Your task to perform on an android device: search for starred emails in the gmail app Image 0: 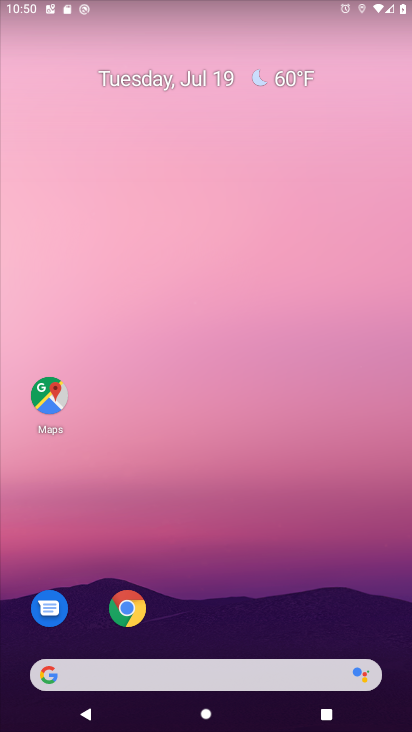
Step 0: drag from (214, 635) to (194, 65)
Your task to perform on an android device: search for starred emails in the gmail app Image 1: 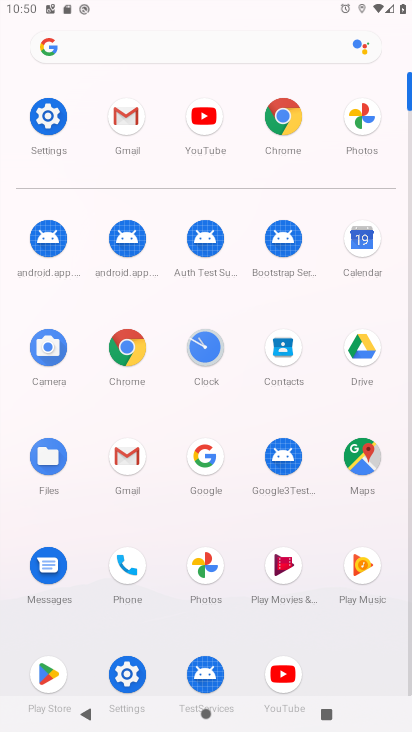
Step 1: click (120, 450)
Your task to perform on an android device: search for starred emails in the gmail app Image 2: 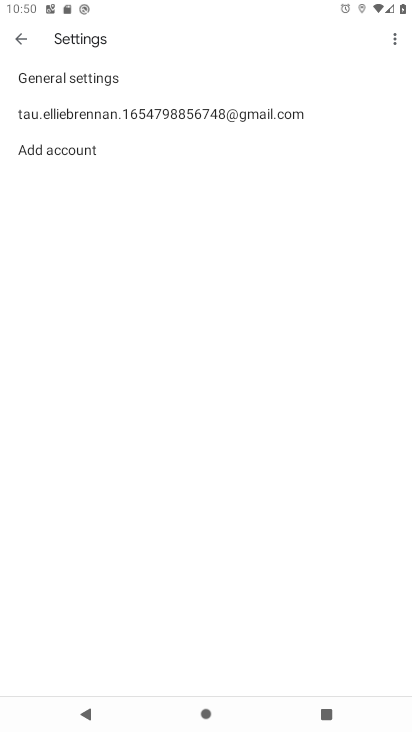
Step 2: click (19, 42)
Your task to perform on an android device: search for starred emails in the gmail app Image 3: 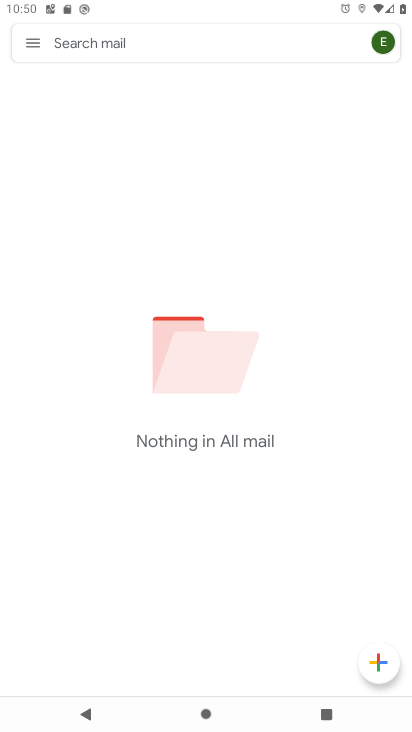
Step 3: click (27, 42)
Your task to perform on an android device: search for starred emails in the gmail app Image 4: 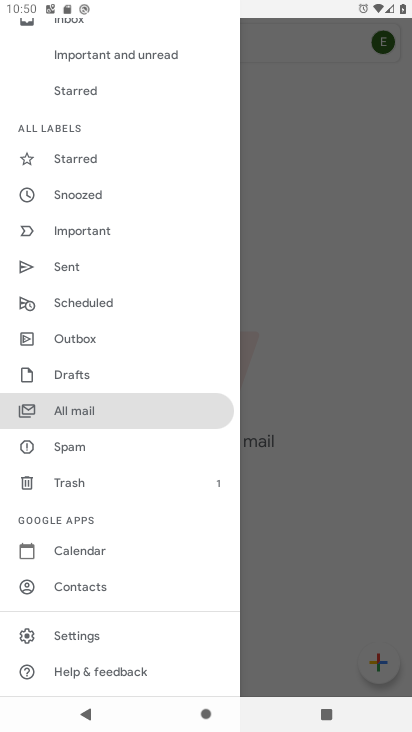
Step 4: click (68, 159)
Your task to perform on an android device: search for starred emails in the gmail app Image 5: 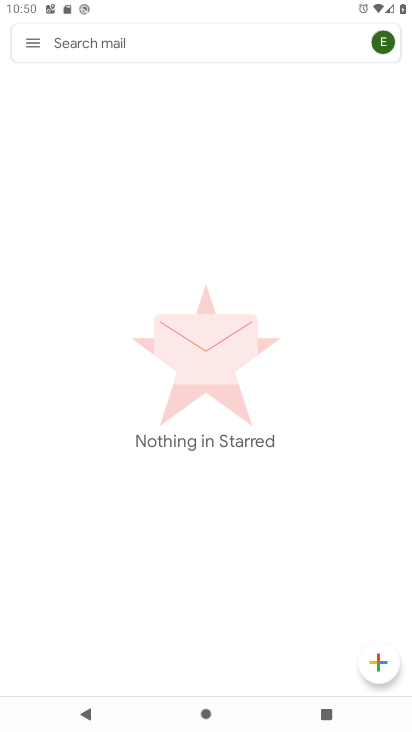
Step 5: task complete